Your task to perform on an android device: Open sound settings Image 0: 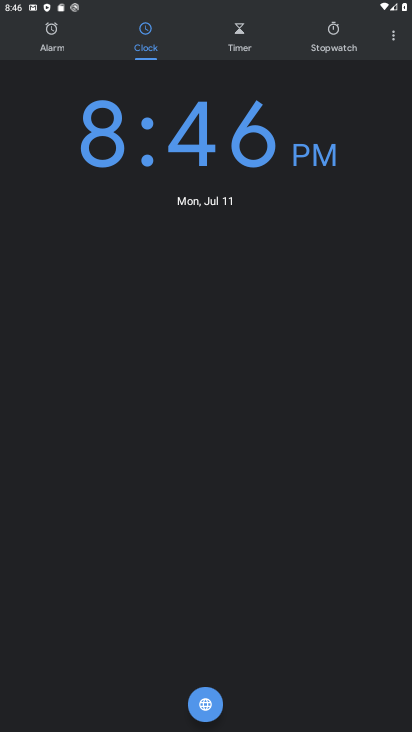
Step 0: press back button
Your task to perform on an android device: Open sound settings Image 1: 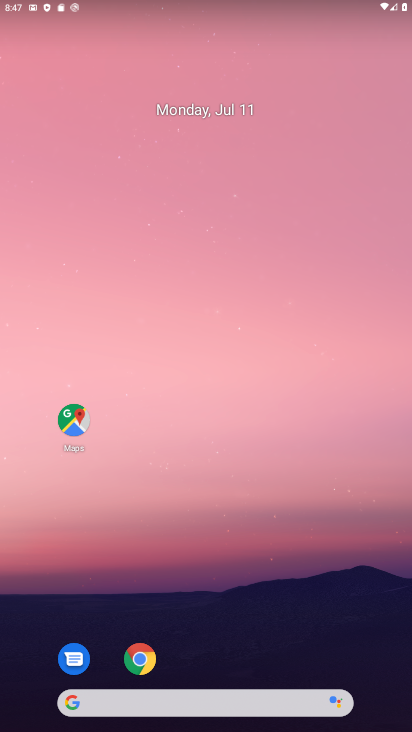
Step 1: drag from (211, 626) to (169, 239)
Your task to perform on an android device: Open sound settings Image 2: 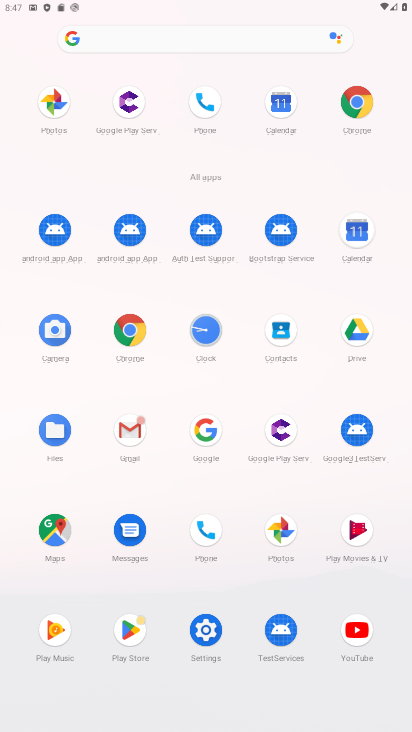
Step 2: click (200, 639)
Your task to perform on an android device: Open sound settings Image 3: 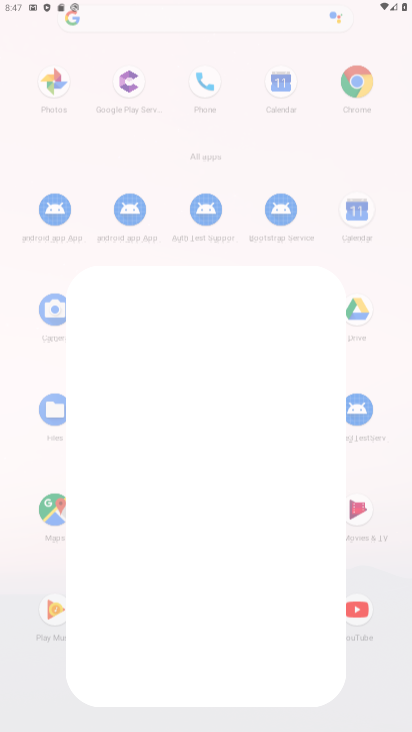
Step 3: click (202, 632)
Your task to perform on an android device: Open sound settings Image 4: 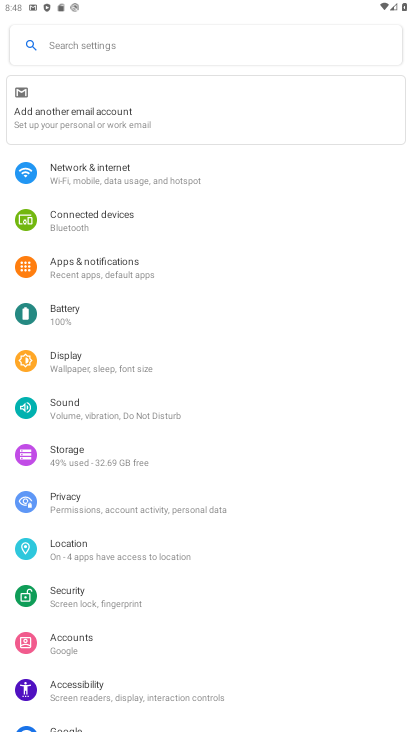
Step 4: click (68, 411)
Your task to perform on an android device: Open sound settings Image 5: 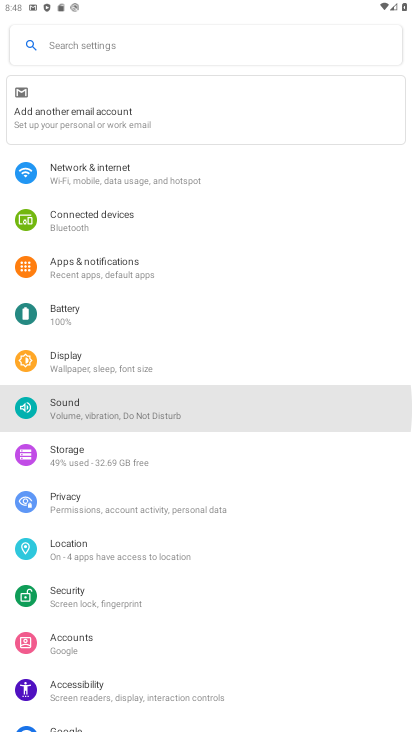
Step 5: click (68, 411)
Your task to perform on an android device: Open sound settings Image 6: 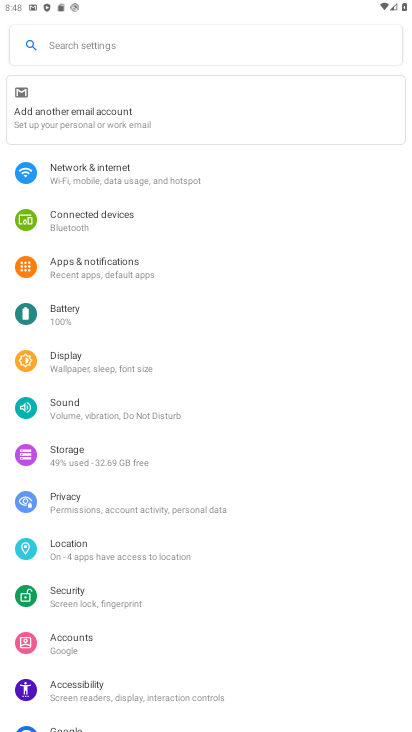
Step 6: click (68, 407)
Your task to perform on an android device: Open sound settings Image 7: 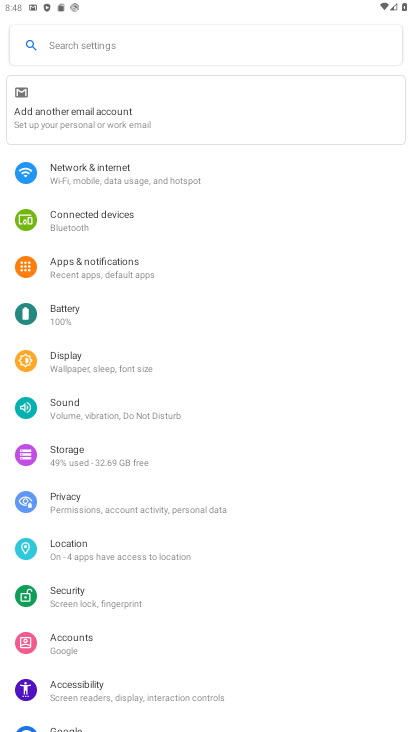
Step 7: click (68, 405)
Your task to perform on an android device: Open sound settings Image 8: 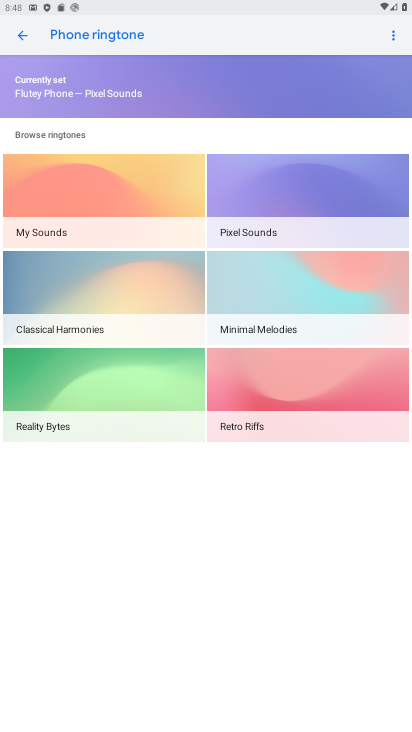
Step 8: click (20, 37)
Your task to perform on an android device: Open sound settings Image 9: 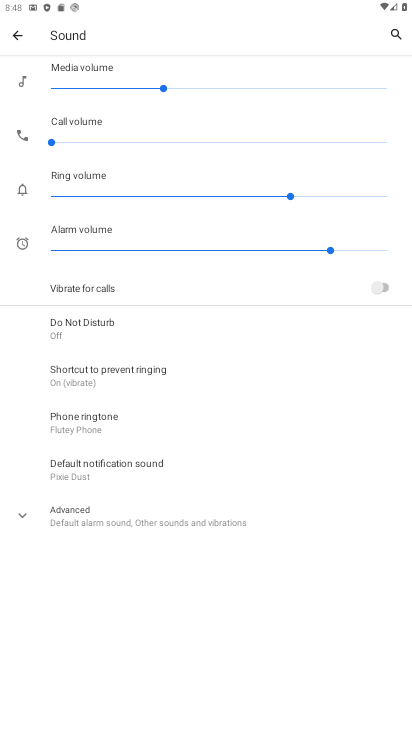
Step 9: task complete